Your task to perform on an android device: Open accessibility settings Image 0: 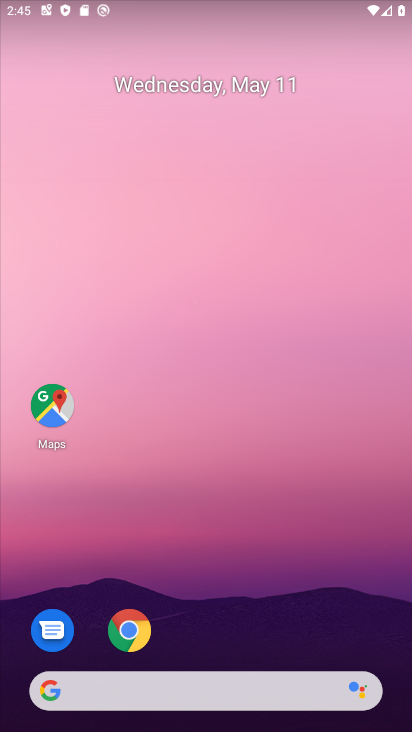
Step 0: drag from (330, 584) to (308, 22)
Your task to perform on an android device: Open accessibility settings Image 1: 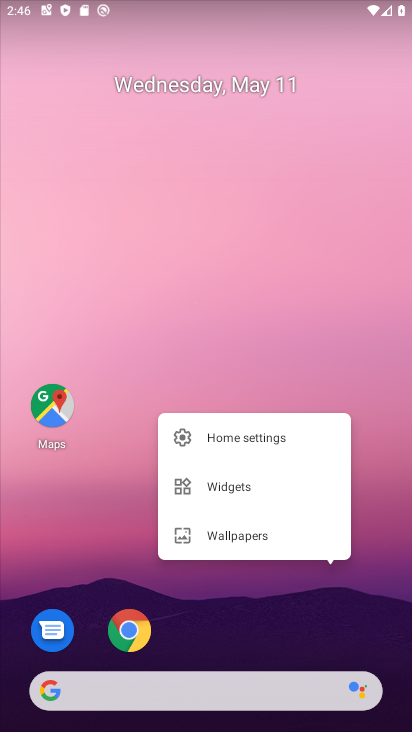
Step 1: drag from (354, 617) to (363, 91)
Your task to perform on an android device: Open accessibility settings Image 2: 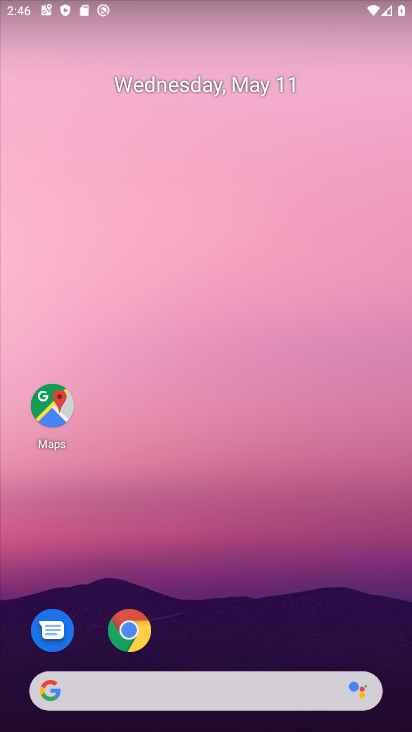
Step 2: drag from (373, 566) to (337, 16)
Your task to perform on an android device: Open accessibility settings Image 3: 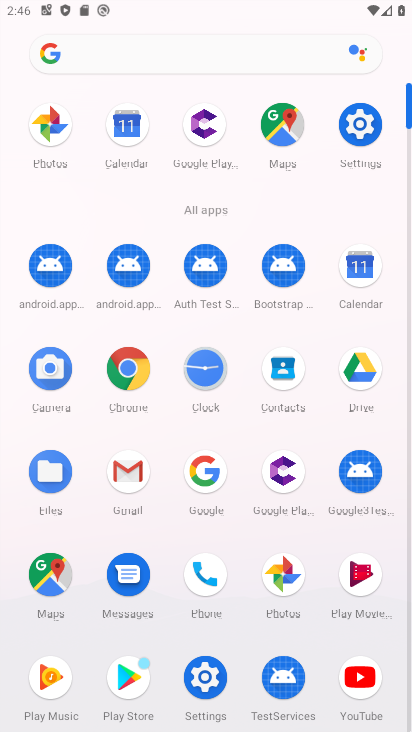
Step 3: click (362, 132)
Your task to perform on an android device: Open accessibility settings Image 4: 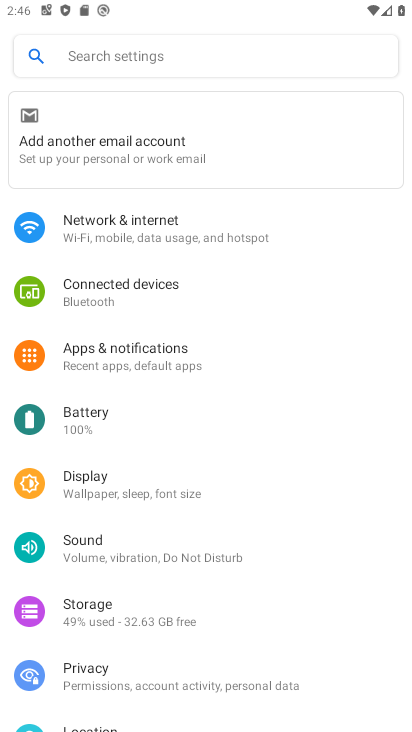
Step 4: drag from (368, 581) to (368, 244)
Your task to perform on an android device: Open accessibility settings Image 5: 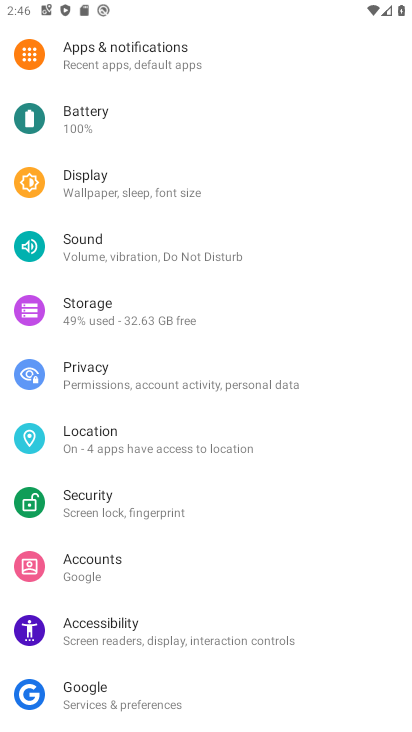
Step 5: click (103, 625)
Your task to perform on an android device: Open accessibility settings Image 6: 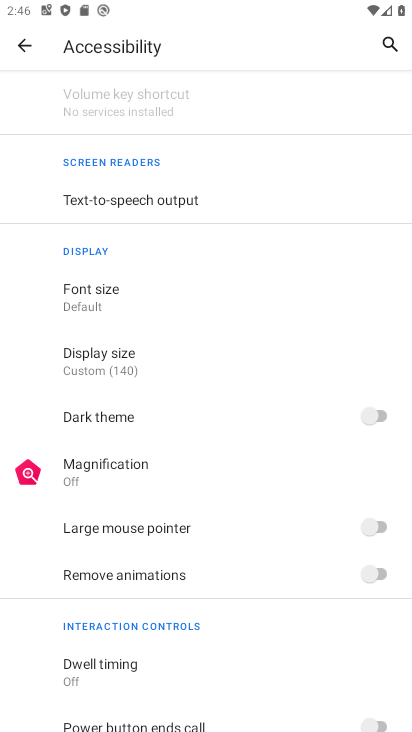
Step 6: task complete